Your task to perform on an android device: Open accessibility settings Image 0: 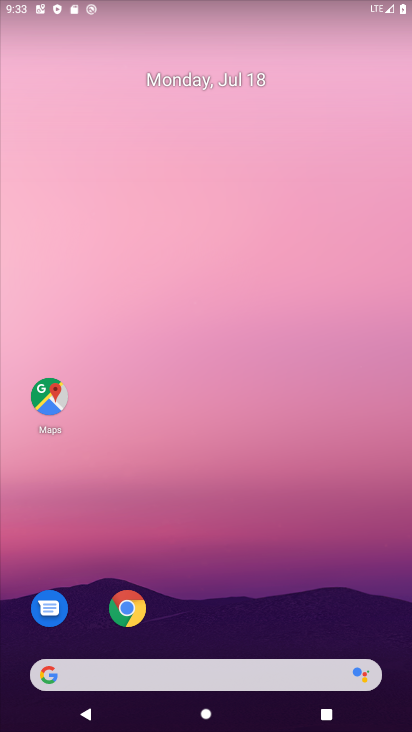
Step 0: drag from (188, 629) to (207, 64)
Your task to perform on an android device: Open accessibility settings Image 1: 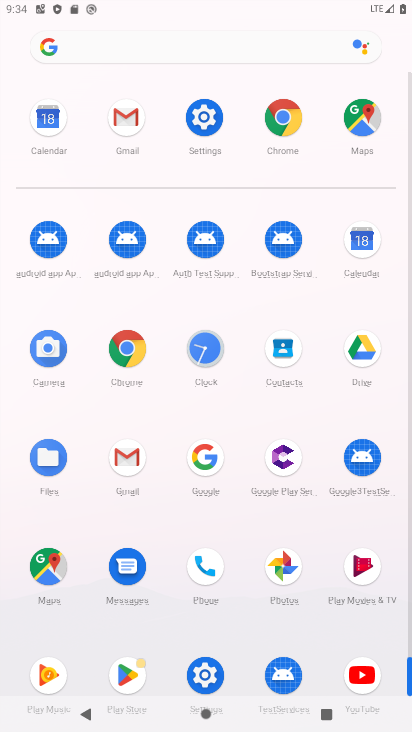
Step 1: click (201, 666)
Your task to perform on an android device: Open accessibility settings Image 2: 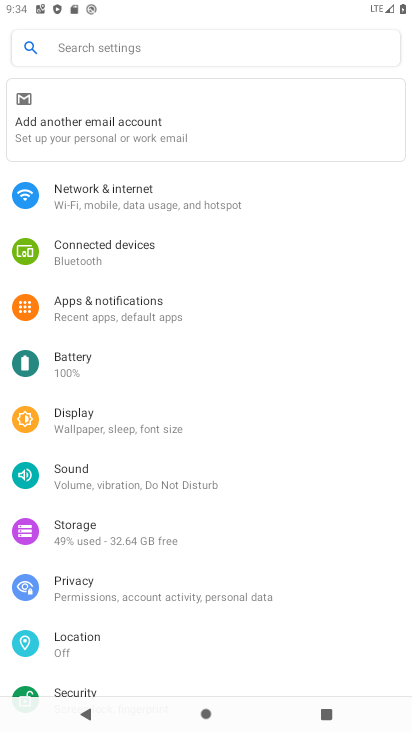
Step 2: drag from (114, 594) to (109, 170)
Your task to perform on an android device: Open accessibility settings Image 3: 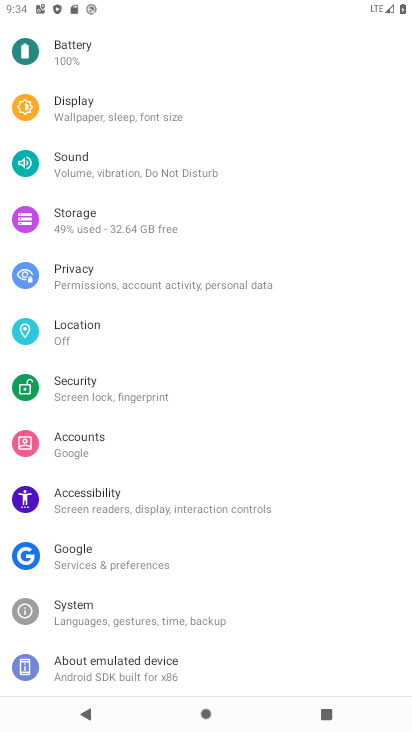
Step 3: click (110, 500)
Your task to perform on an android device: Open accessibility settings Image 4: 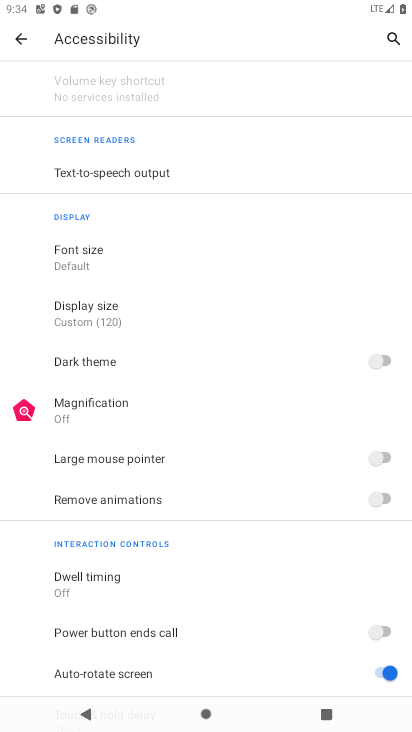
Step 4: task complete